Your task to perform on an android device: turn notification dots on Image 0: 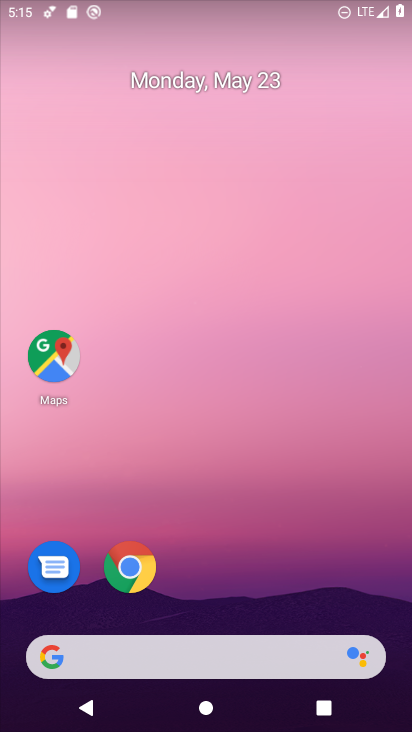
Step 0: drag from (244, 583) to (208, 59)
Your task to perform on an android device: turn notification dots on Image 1: 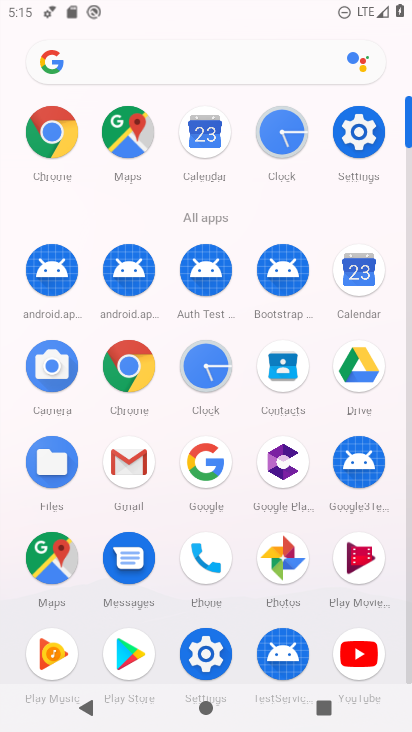
Step 1: click (204, 652)
Your task to perform on an android device: turn notification dots on Image 2: 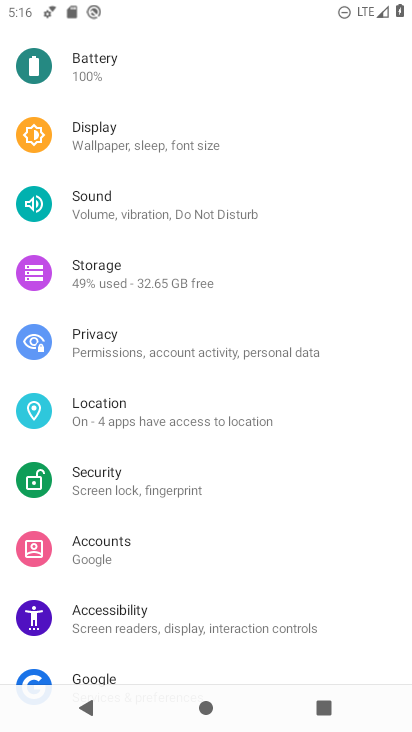
Step 2: drag from (171, 200) to (176, 308)
Your task to perform on an android device: turn notification dots on Image 3: 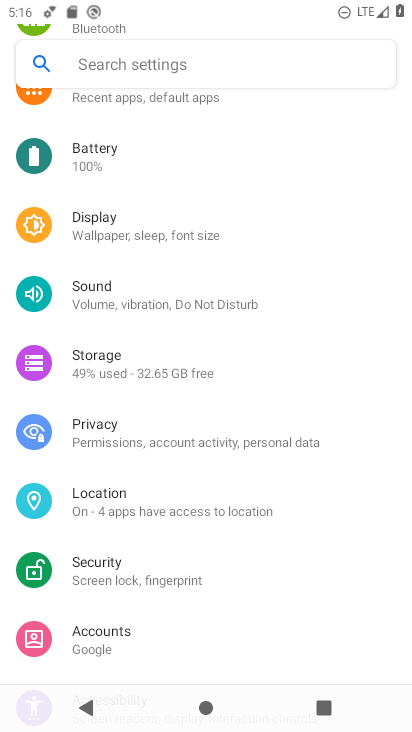
Step 3: drag from (196, 184) to (215, 294)
Your task to perform on an android device: turn notification dots on Image 4: 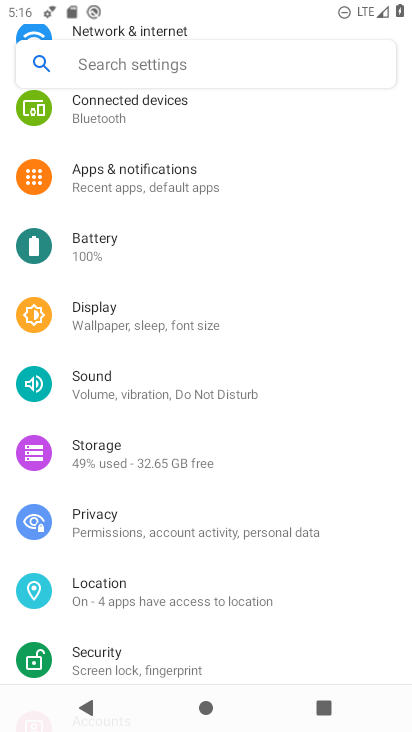
Step 4: click (150, 170)
Your task to perform on an android device: turn notification dots on Image 5: 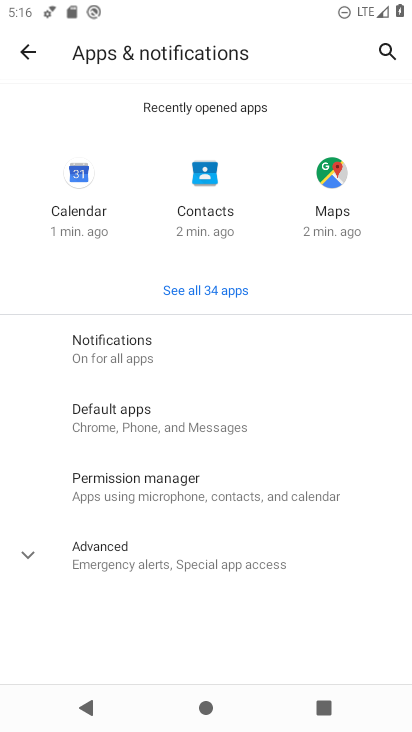
Step 5: click (122, 353)
Your task to perform on an android device: turn notification dots on Image 6: 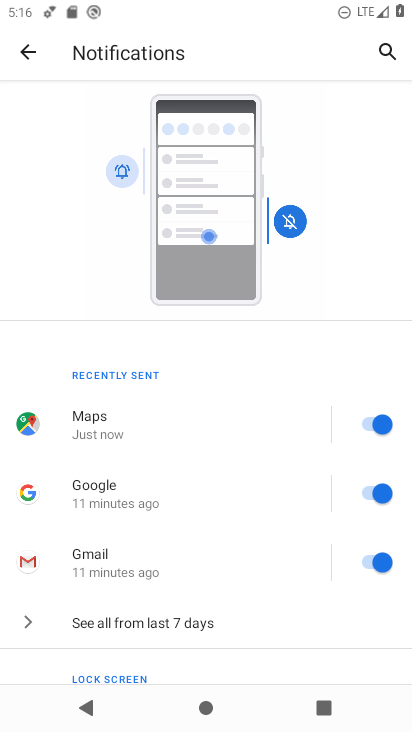
Step 6: drag from (228, 604) to (231, 503)
Your task to perform on an android device: turn notification dots on Image 7: 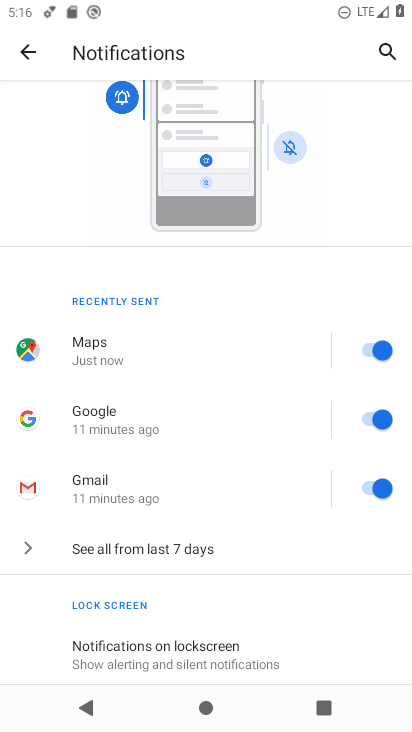
Step 7: drag from (239, 626) to (242, 522)
Your task to perform on an android device: turn notification dots on Image 8: 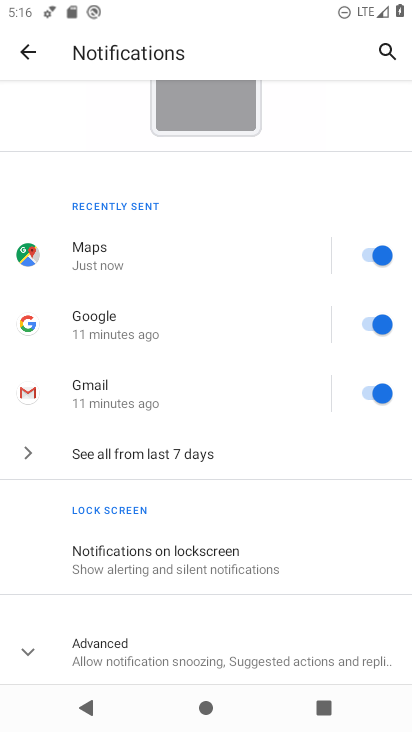
Step 8: drag from (211, 595) to (233, 500)
Your task to perform on an android device: turn notification dots on Image 9: 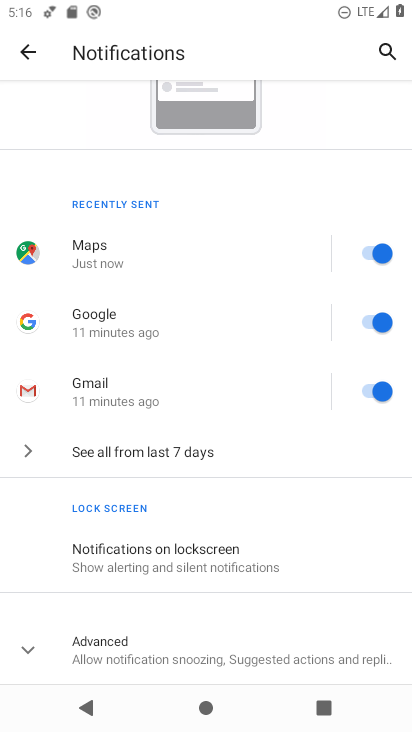
Step 9: click (195, 654)
Your task to perform on an android device: turn notification dots on Image 10: 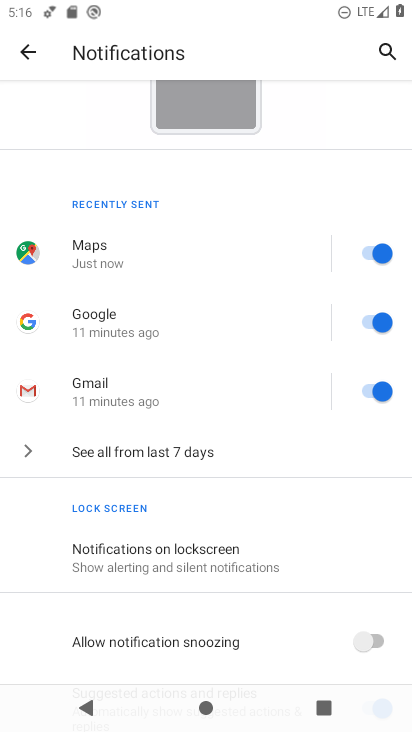
Step 10: task complete